Your task to perform on an android device: turn pop-ups off in chrome Image 0: 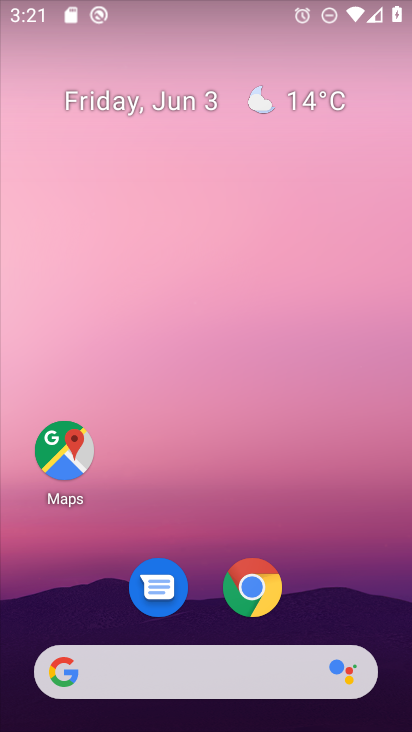
Step 0: click (258, 586)
Your task to perform on an android device: turn pop-ups off in chrome Image 1: 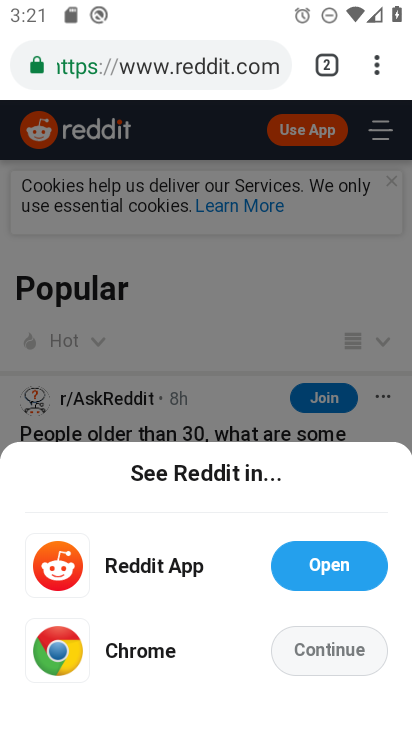
Step 1: click (377, 70)
Your task to perform on an android device: turn pop-ups off in chrome Image 2: 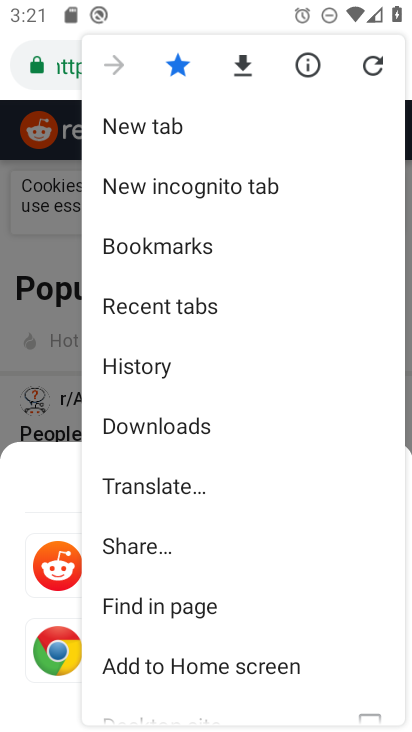
Step 2: drag from (179, 676) to (182, 219)
Your task to perform on an android device: turn pop-ups off in chrome Image 3: 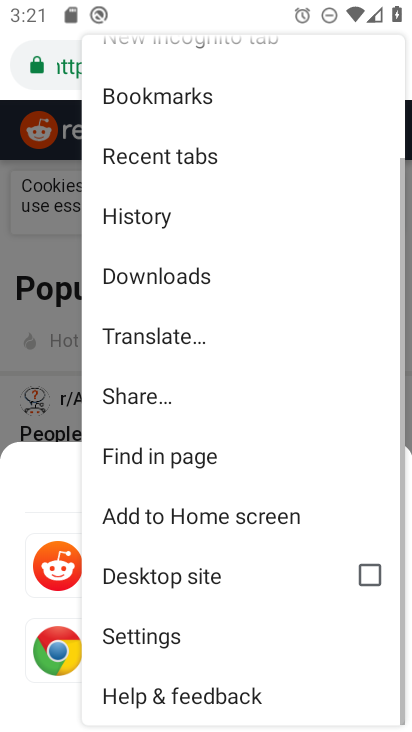
Step 3: click (154, 632)
Your task to perform on an android device: turn pop-ups off in chrome Image 4: 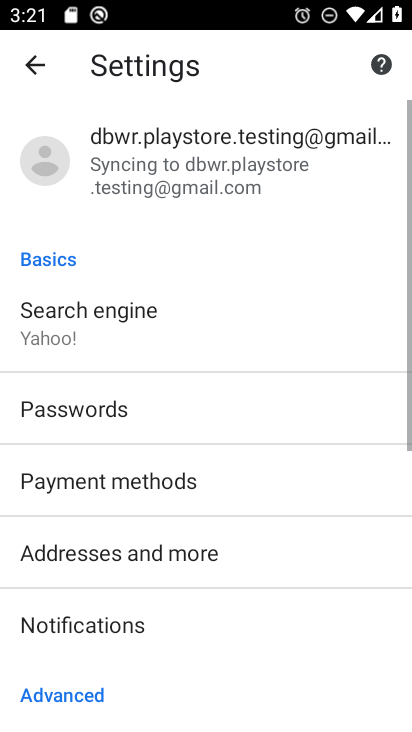
Step 4: drag from (187, 683) to (213, 286)
Your task to perform on an android device: turn pop-ups off in chrome Image 5: 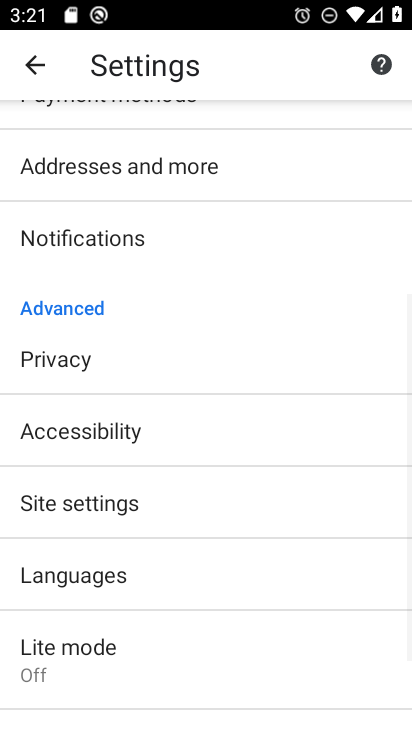
Step 5: click (92, 500)
Your task to perform on an android device: turn pop-ups off in chrome Image 6: 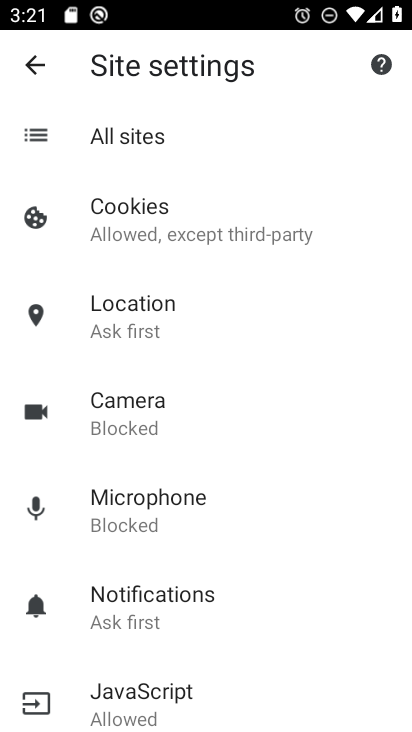
Step 6: drag from (149, 672) to (166, 304)
Your task to perform on an android device: turn pop-ups off in chrome Image 7: 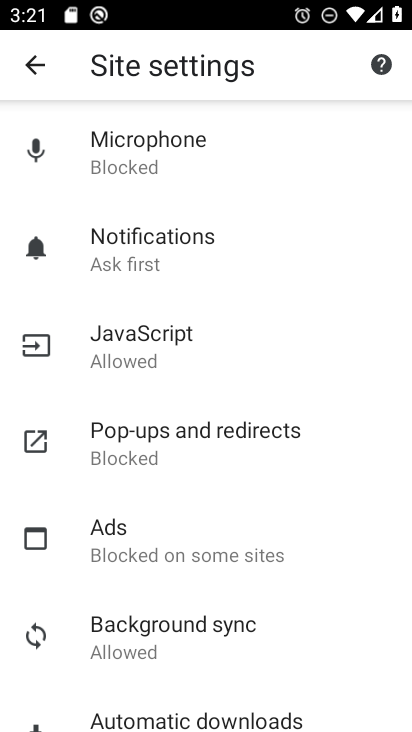
Step 7: drag from (157, 673) to (165, 402)
Your task to perform on an android device: turn pop-ups off in chrome Image 8: 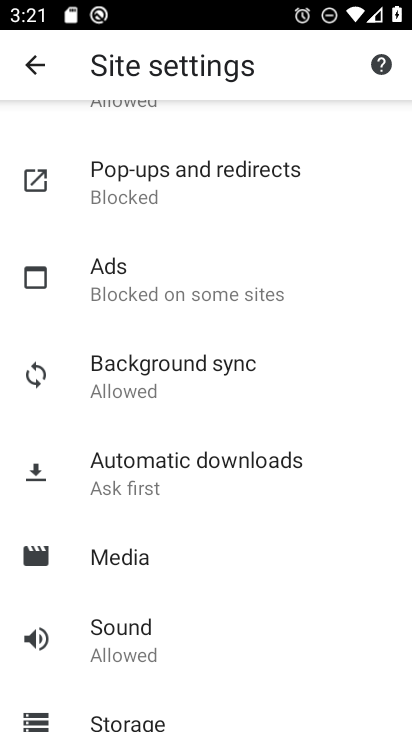
Step 8: click (124, 183)
Your task to perform on an android device: turn pop-ups off in chrome Image 9: 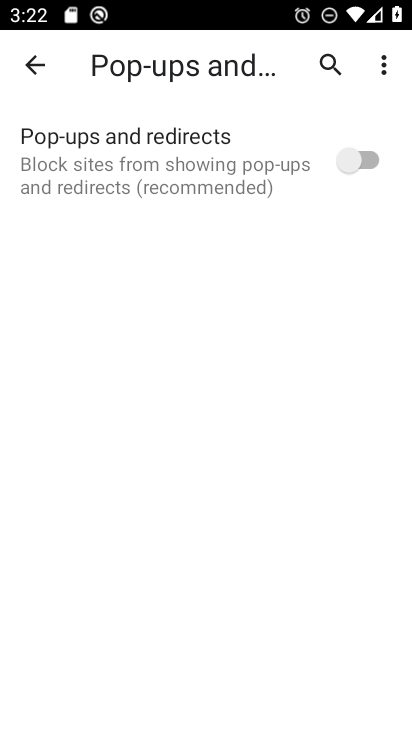
Step 9: task complete